Your task to perform on an android device: Open Google Image 0: 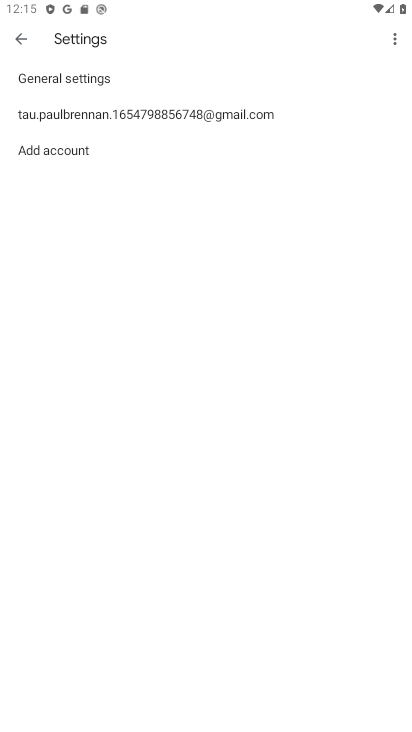
Step 0: drag from (235, 672) to (311, 294)
Your task to perform on an android device: Open Google Image 1: 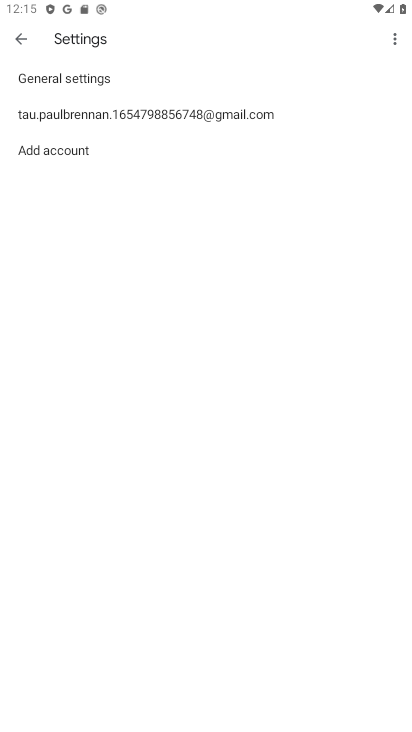
Step 1: press home button
Your task to perform on an android device: Open Google Image 2: 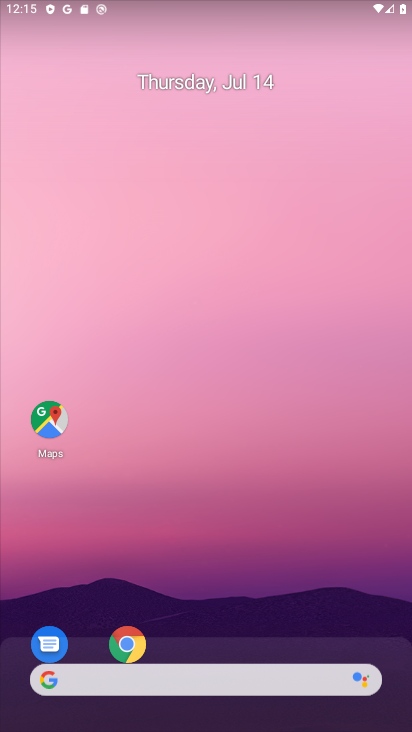
Step 2: drag from (218, 672) to (267, 145)
Your task to perform on an android device: Open Google Image 3: 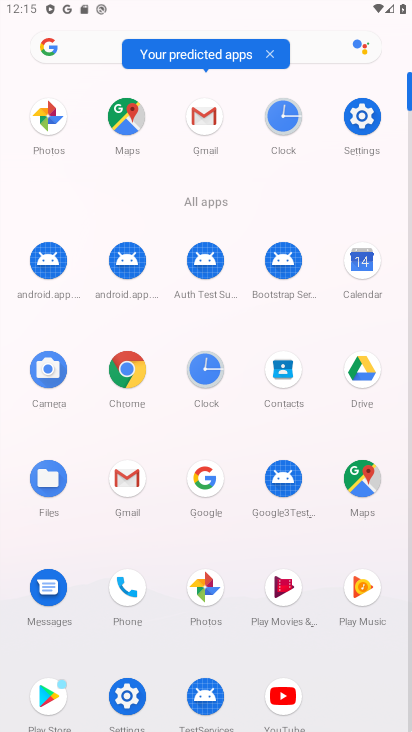
Step 3: click (191, 479)
Your task to perform on an android device: Open Google Image 4: 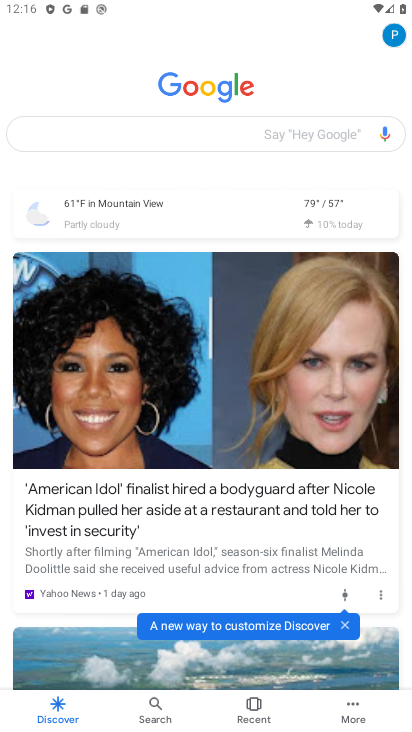
Step 4: task complete